Your task to perform on an android device: Open Yahoo.com Image 0: 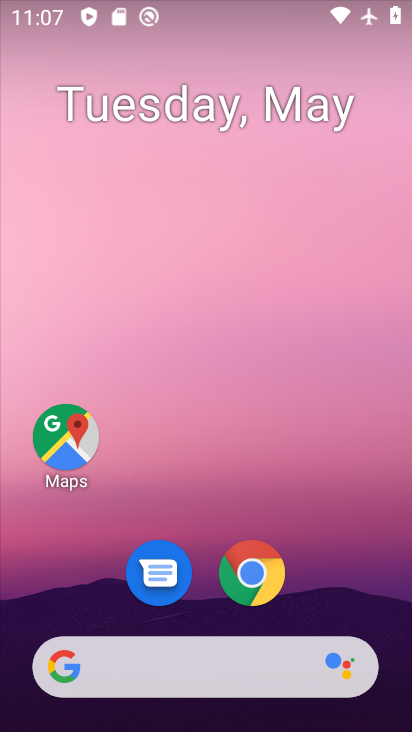
Step 0: click (248, 583)
Your task to perform on an android device: Open Yahoo.com Image 1: 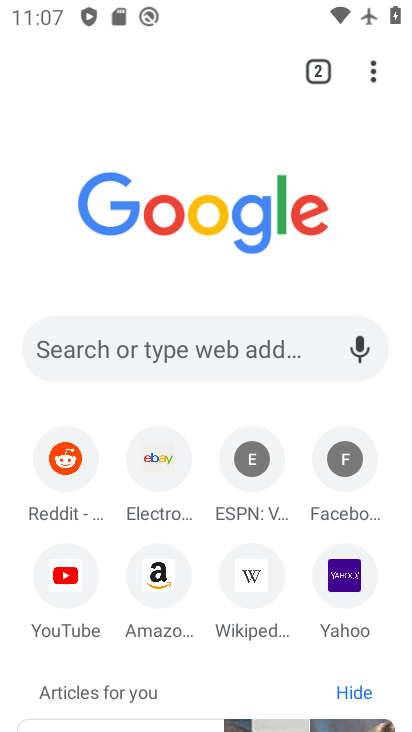
Step 1: click (338, 579)
Your task to perform on an android device: Open Yahoo.com Image 2: 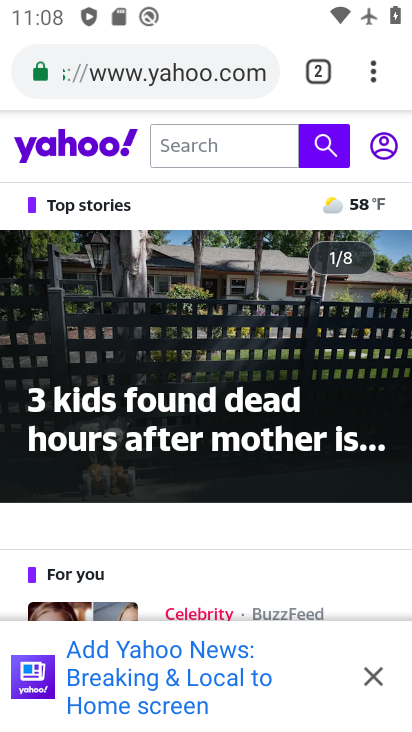
Step 2: task complete